Your task to perform on an android device: Go to calendar. Show me events next week Image 0: 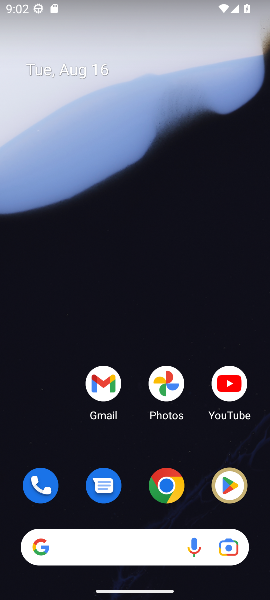
Step 0: drag from (203, 460) to (158, 146)
Your task to perform on an android device: Go to calendar. Show me events next week Image 1: 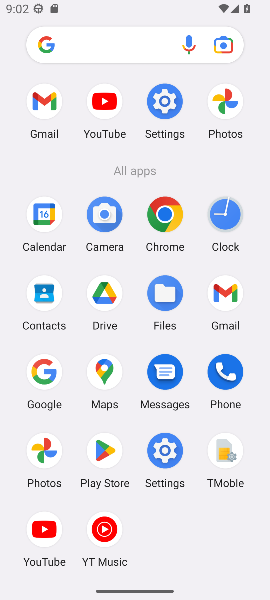
Step 1: click (39, 216)
Your task to perform on an android device: Go to calendar. Show me events next week Image 2: 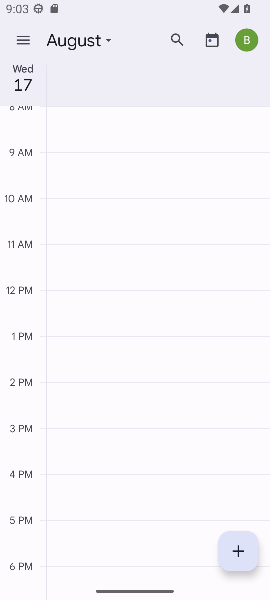
Step 2: click (29, 46)
Your task to perform on an android device: Go to calendar. Show me events next week Image 3: 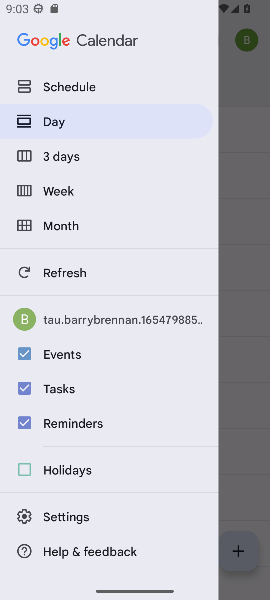
Step 3: click (67, 191)
Your task to perform on an android device: Go to calendar. Show me events next week Image 4: 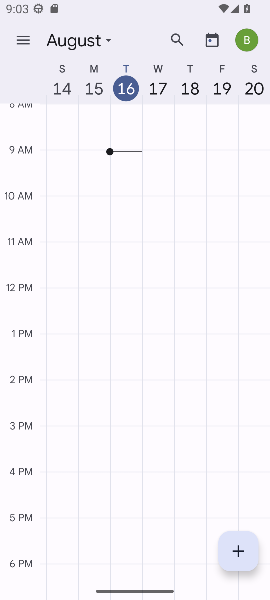
Step 4: click (96, 46)
Your task to perform on an android device: Go to calendar. Show me events next week Image 5: 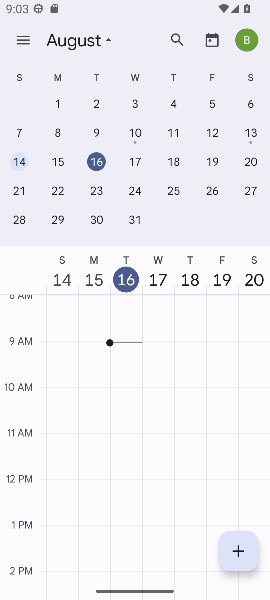
Step 5: click (135, 192)
Your task to perform on an android device: Go to calendar. Show me events next week Image 6: 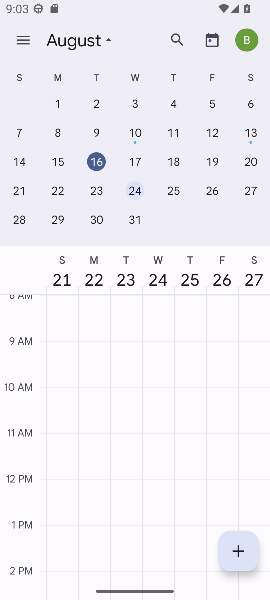
Step 6: task complete